Your task to perform on an android device: When is my next appointment? Image 0: 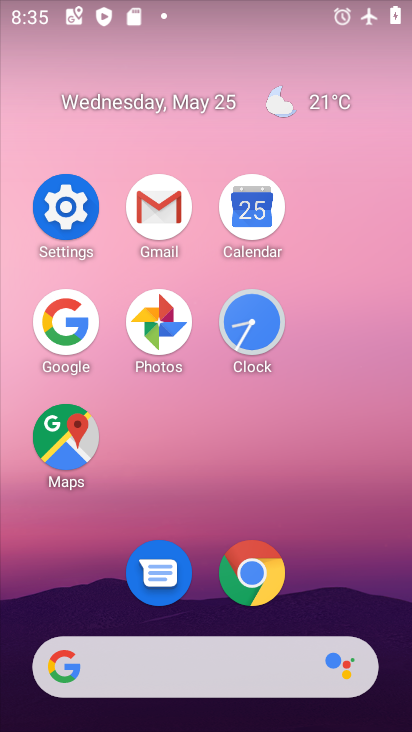
Step 0: click (267, 193)
Your task to perform on an android device: When is my next appointment? Image 1: 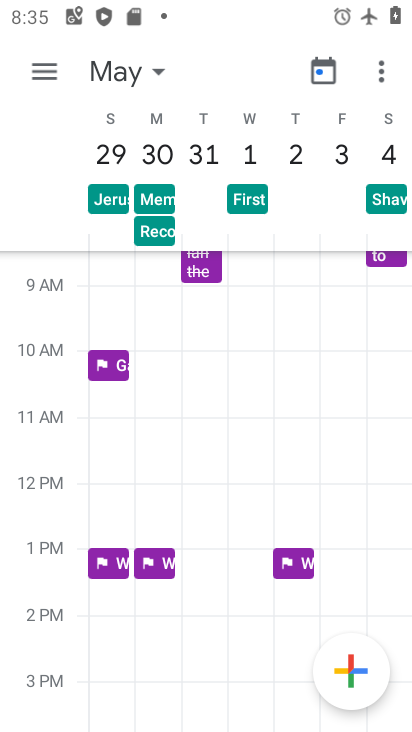
Step 1: drag from (119, 163) to (402, 152)
Your task to perform on an android device: When is my next appointment? Image 2: 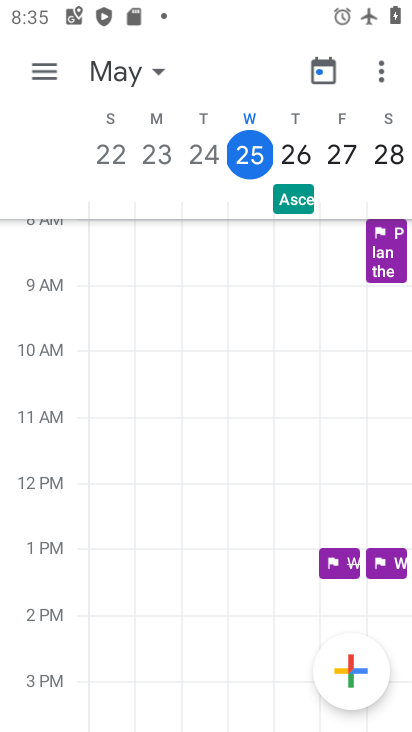
Step 2: click (337, 153)
Your task to perform on an android device: When is my next appointment? Image 3: 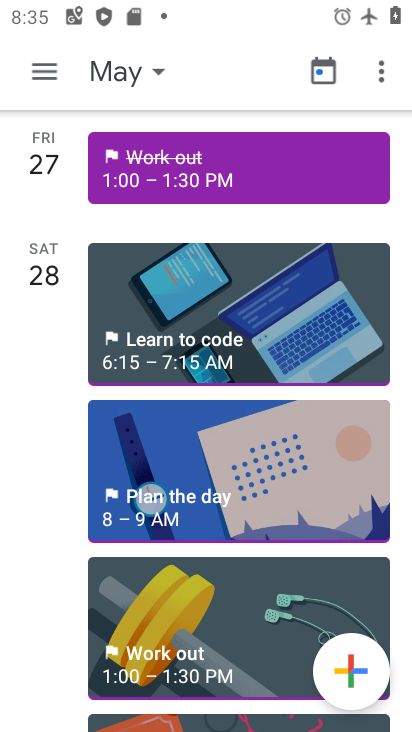
Step 3: task complete